Your task to perform on an android device: Go to notification settings Image 0: 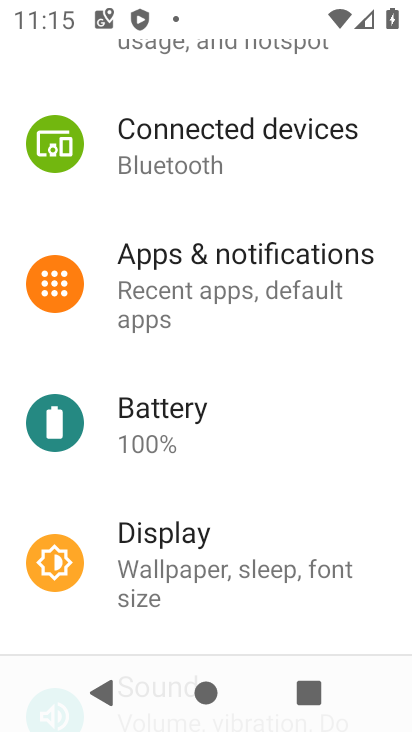
Step 0: drag from (204, 551) to (207, 189)
Your task to perform on an android device: Go to notification settings Image 1: 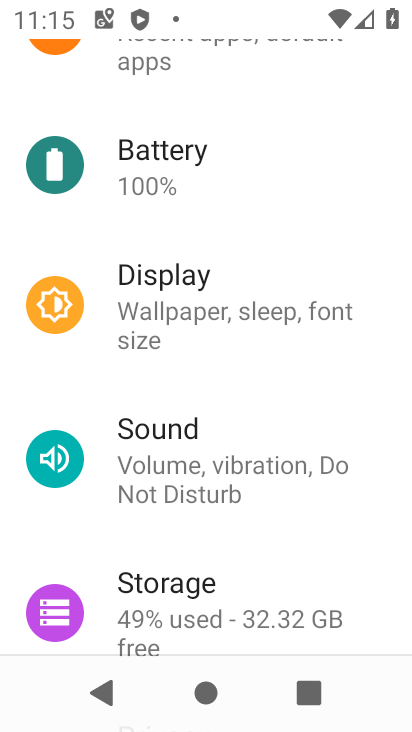
Step 1: press home button
Your task to perform on an android device: Go to notification settings Image 2: 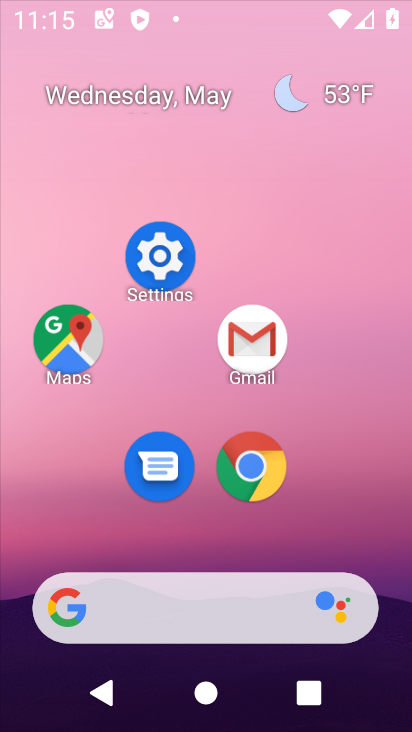
Step 2: drag from (200, 547) to (267, 205)
Your task to perform on an android device: Go to notification settings Image 3: 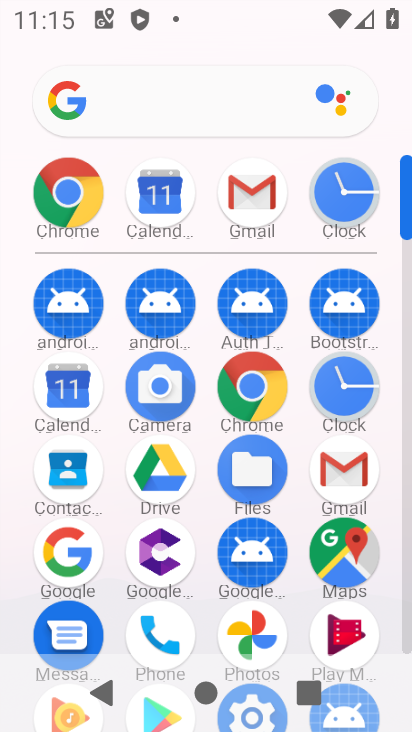
Step 3: drag from (203, 623) to (213, 228)
Your task to perform on an android device: Go to notification settings Image 4: 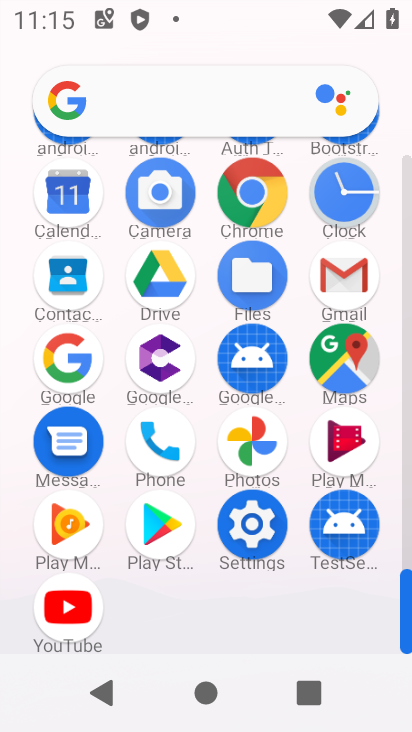
Step 4: click (247, 513)
Your task to perform on an android device: Go to notification settings Image 5: 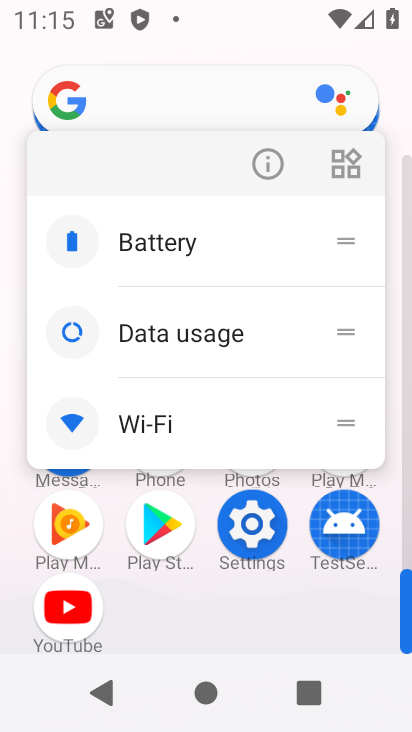
Step 5: click (263, 179)
Your task to perform on an android device: Go to notification settings Image 6: 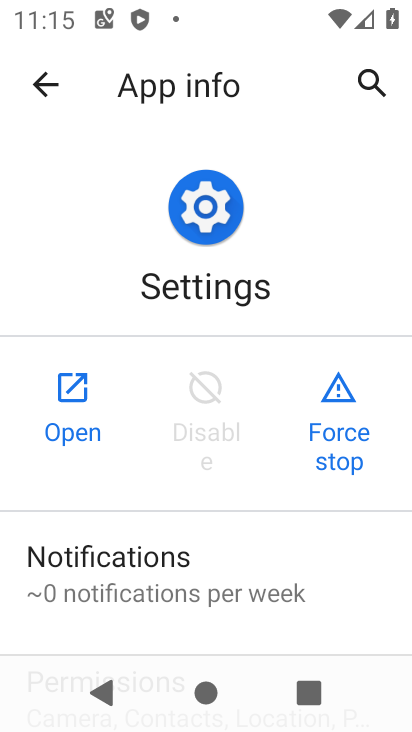
Step 6: click (73, 420)
Your task to perform on an android device: Go to notification settings Image 7: 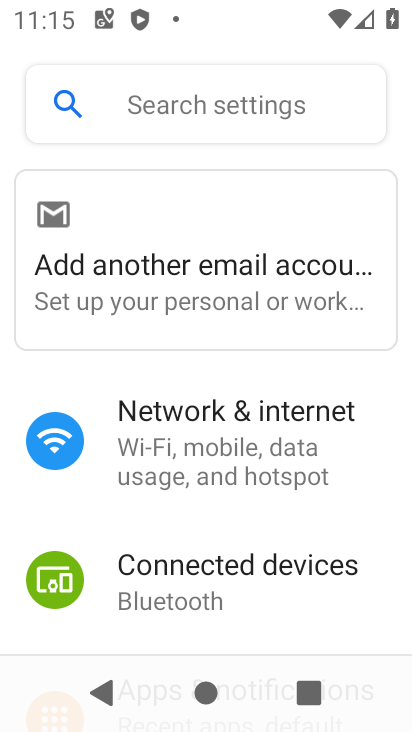
Step 7: drag from (288, 564) to (323, 259)
Your task to perform on an android device: Go to notification settings Image 8: 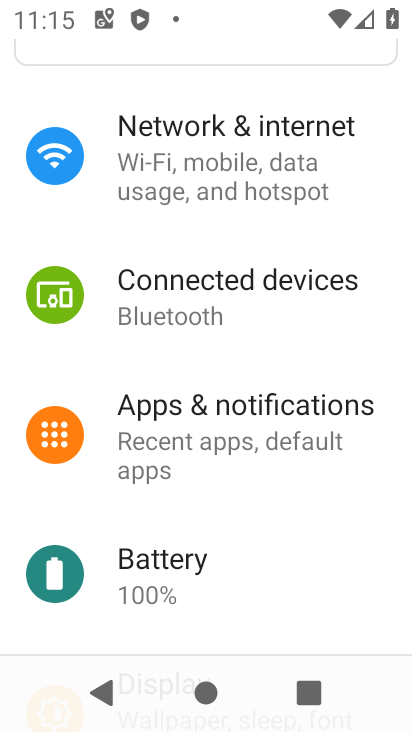
Step 8: click (188, 423)
Your task to perform on an android device: Go to notification settings Image 9: 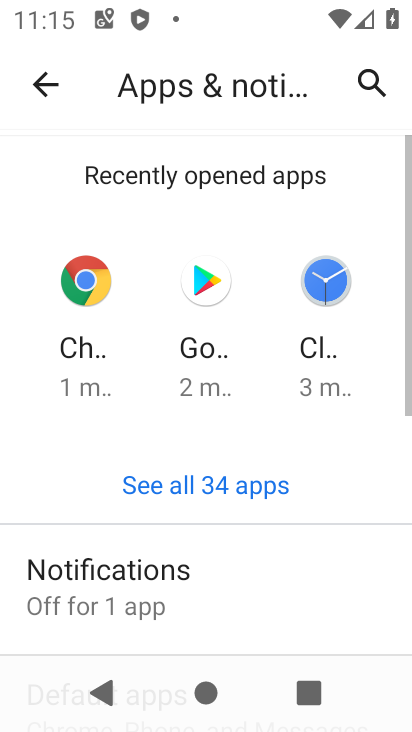
Step 9: drag from (218, 556) to (310, 257)
Your task to perform on an android device: Go to notification settings Image 10: 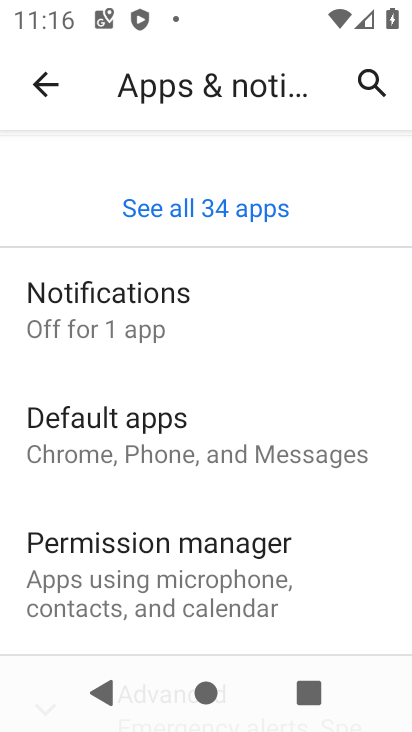
Step 10: click (187, 335)
Your task to perform on an android device: Go to notification settings Image 11: 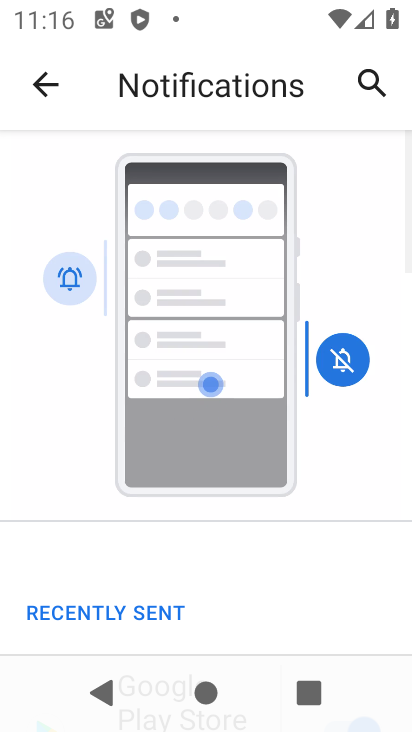
Step 11: task complete